Your task to perform on an android device: Turn off the flashlight Image 0: 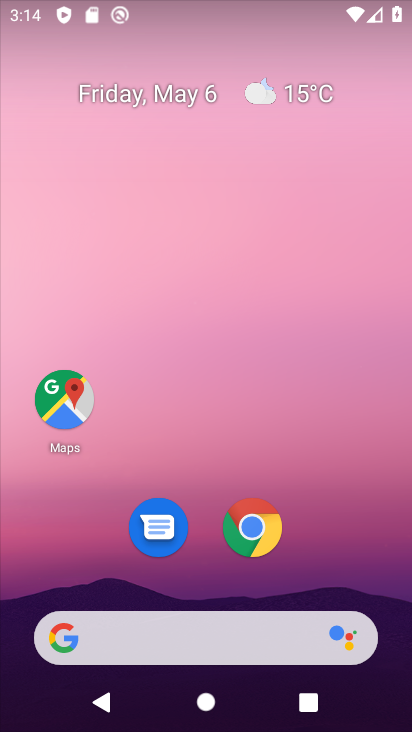
Step 0: click (264, 60)
Your task to perform on an android device: Turn off the flashlight Image 1: 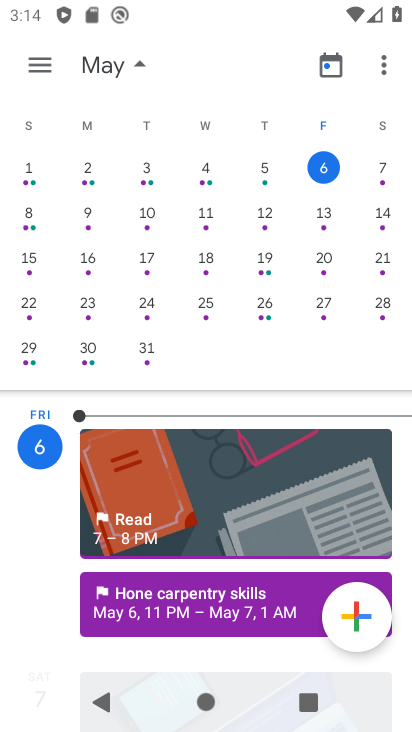
Step 1: press home button
Your task to perform on an android device: Turn off the flashlight Image 2: 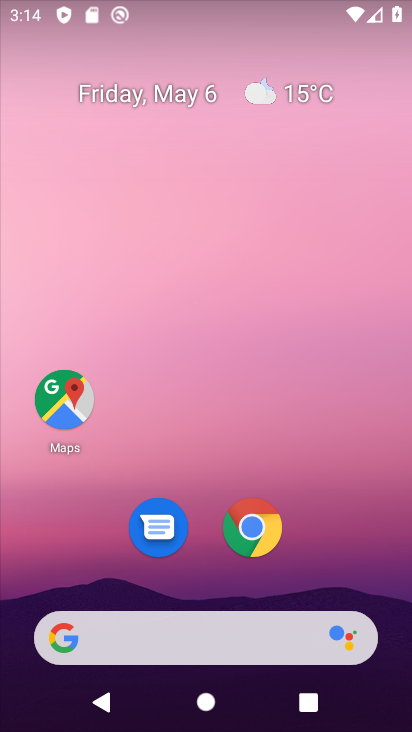
Step 2: drag from (298, 532) to (287, 85)
Your task to perform on an android device: Turn off the flashlight Image 3: 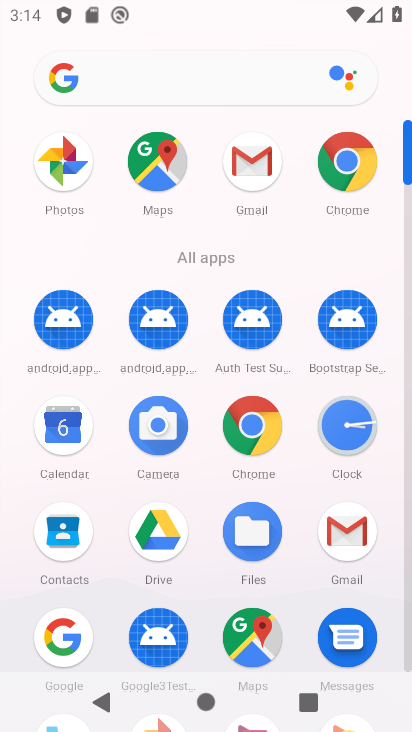
Step 3: click (267, 181)
Your task to perform on an android device: Turn off the flashlight Image 4: 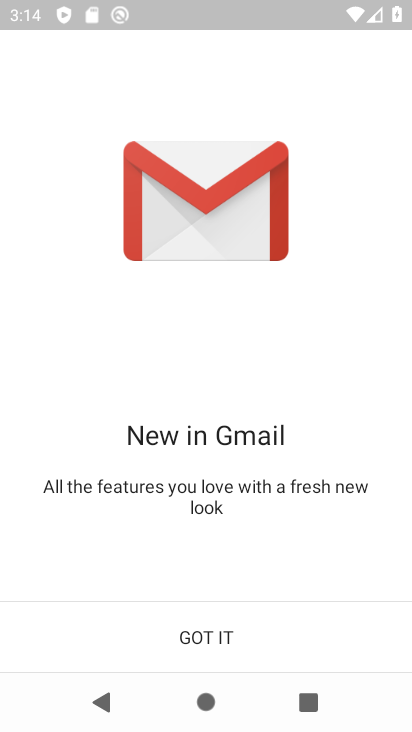
Step 4: click (202, 617)
Your task to perform on an android device: Turn off the flashlight Image 5: 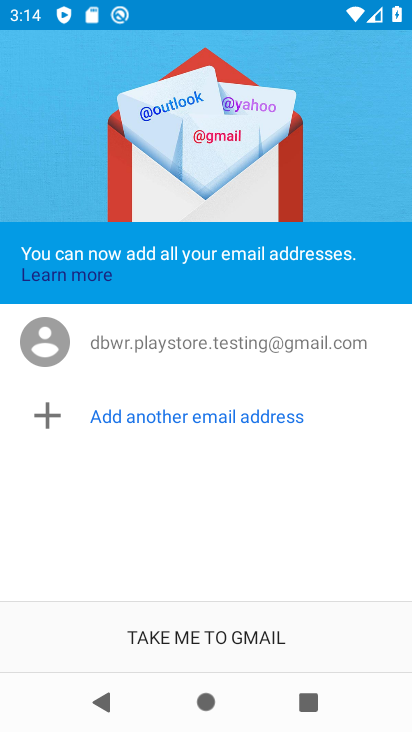
Step 5: click (204, 640)
Your task to perform on an android device: Turn off the flashlight Image 6: 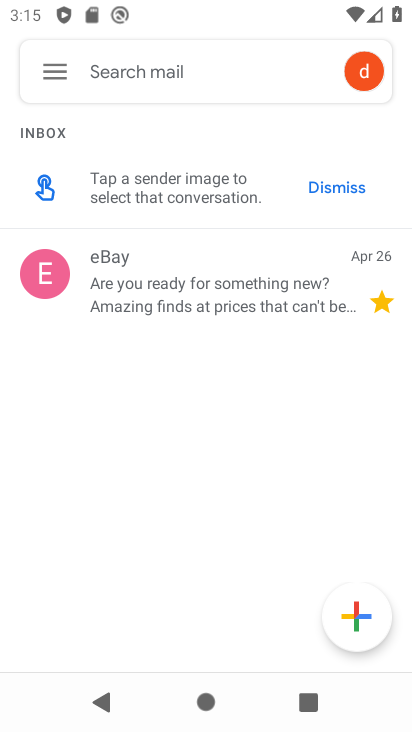
Step 6: task complete